Your task to perform on an android device: Open maps Image 0: 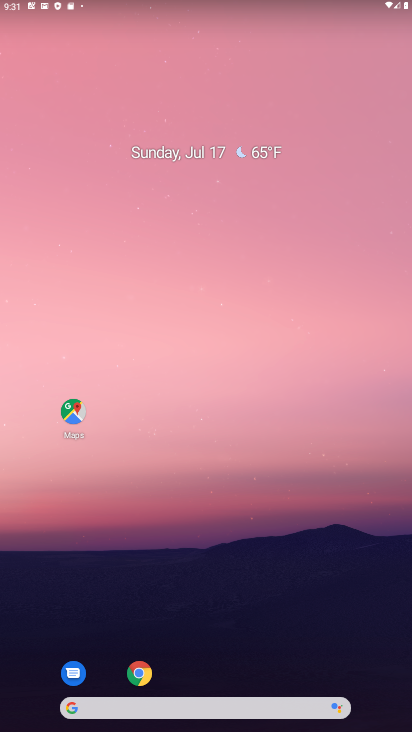
Step 0: click (142, 673)
Your task to perform on an android device: Open maps Image 1: 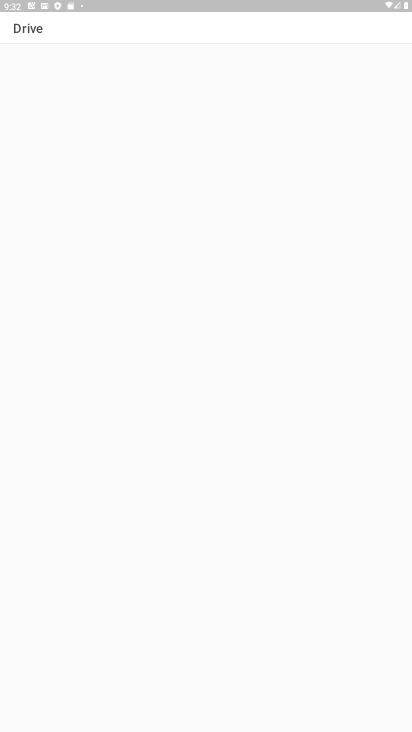
Step 1: press home button
Your task to perform on an android device: Open maps Image 2: 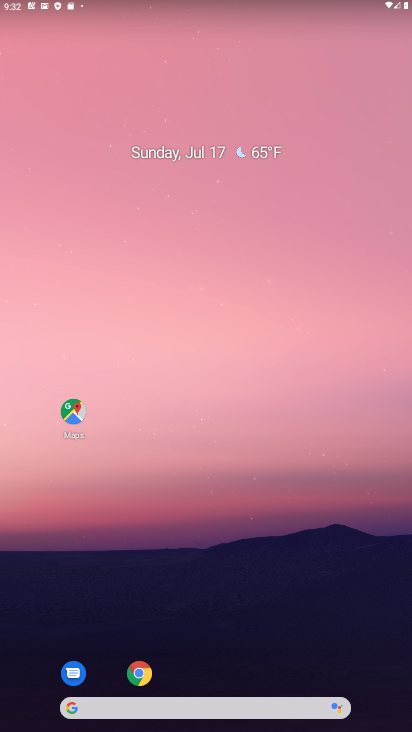
Step 2: click (73, 412)
Your task to perform on an android device: Open maps Image 3: 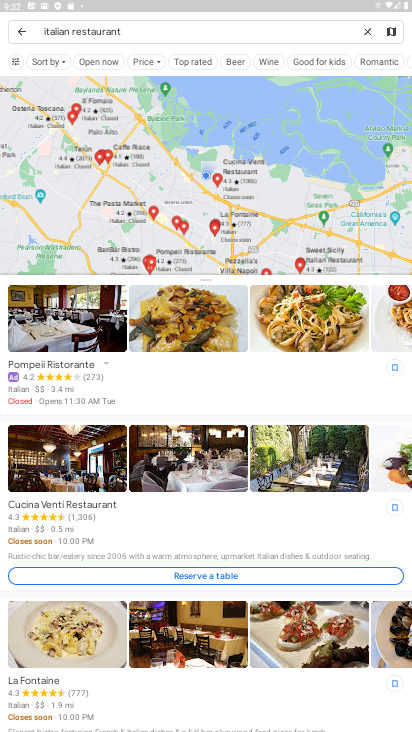
Step 3: task complete